Your task to perform on an android device: find which apps use the phone's location Image 0: 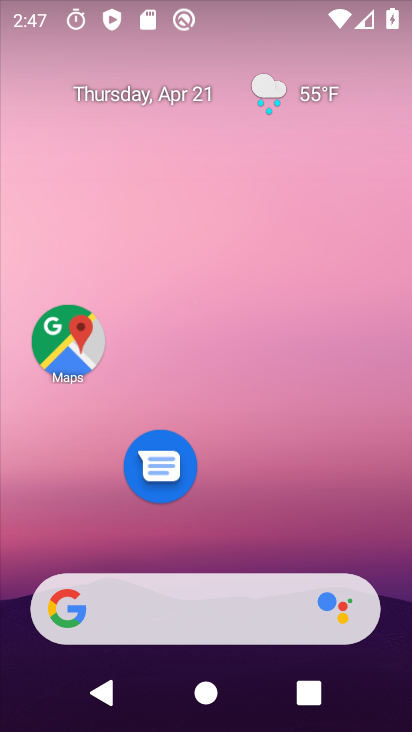
Step 0: click (270, 513)
Your task to perform on an android device: find which apps use the phone's location Image 1: 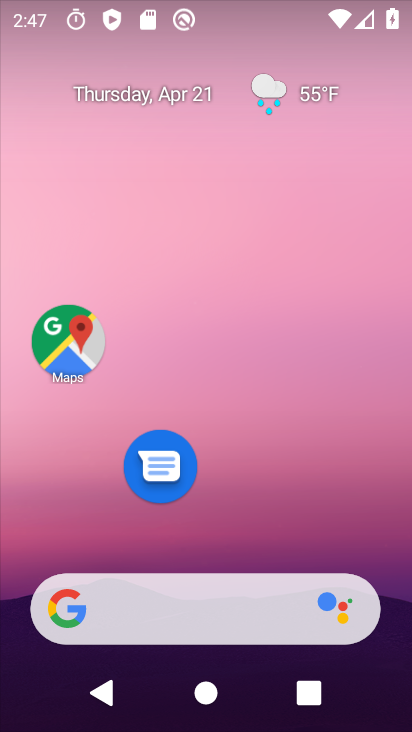
Step 1: drag from (290, 534) to (347, 24)
Your task to perform on an android device: find which apps use the phone's location Image 2: 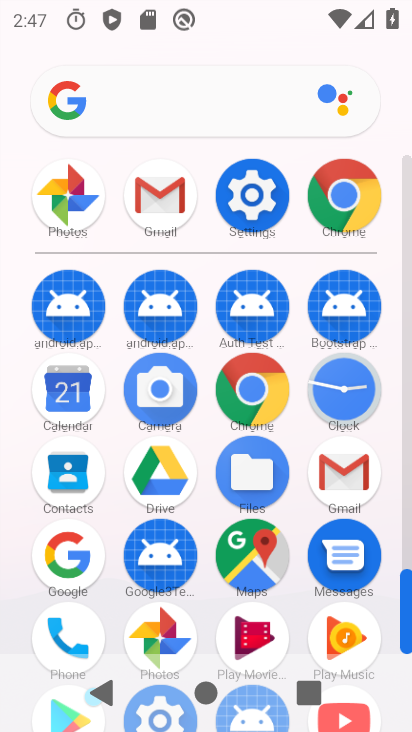
Step 2: click (261, 195)
Your task to perform on an android device: find which apps use the phone's location Image 3: 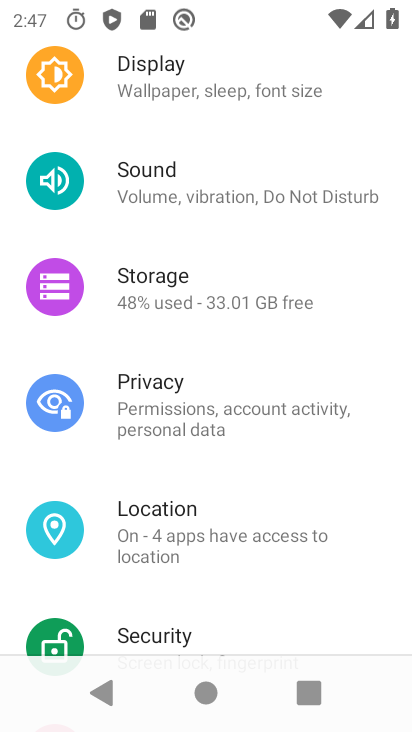
Step 3: click (238, 517)
Your task to perform on an android device: find which apps use the phone's location Image 4: 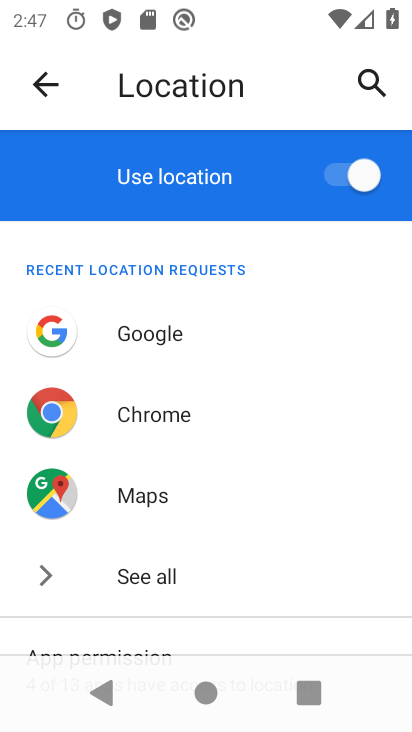
Step 4: drag from (191, 563) to (234, 236)
Your task to perform on an android device: find which apps use the phone's location Image 5: 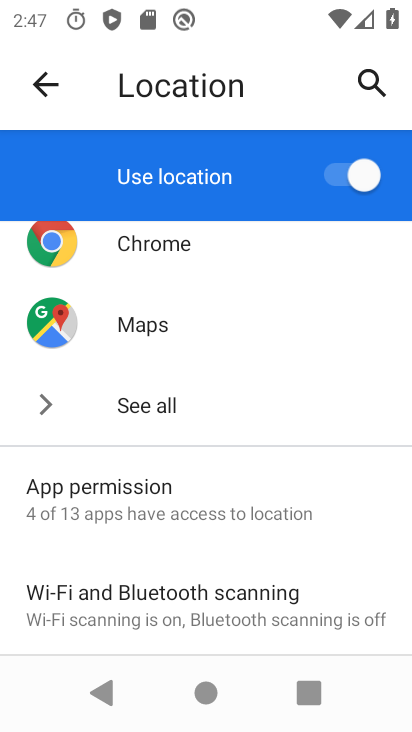
Step 5: click (154, 509)
Your task to perform on an android device: find which apps use the phone's location Image 6: 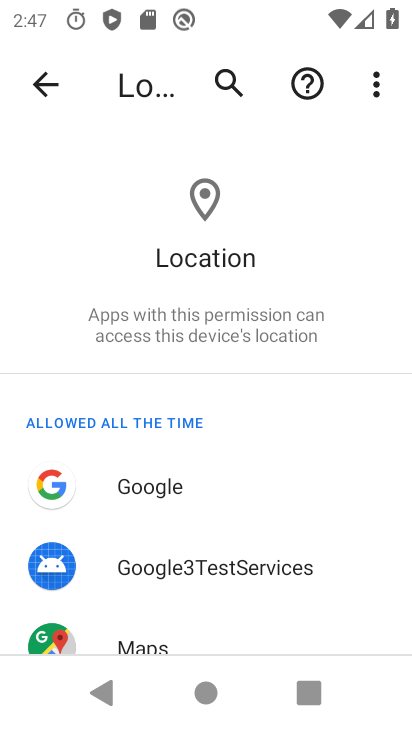
Step 6: task complete